Your task to perform on an android device: Check the weather Image 0: 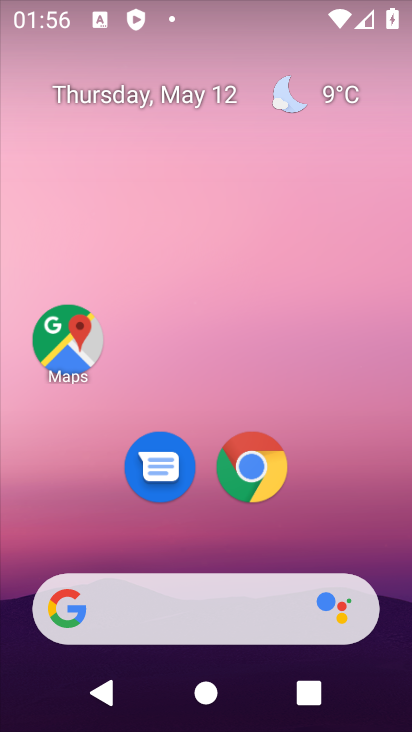
Step 0: drag from (309, 547) to (302, 182)
Your task to perform on an android device: Check the weather Image 1: 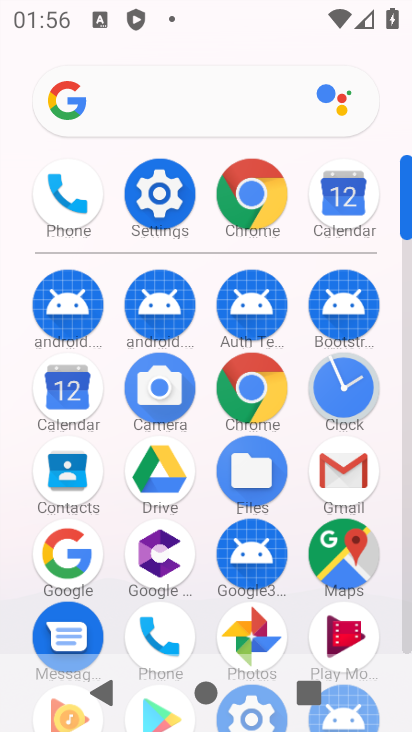
Step 1: click (254, 196)
Your task to perform on an android device: Check the weather Image 2: 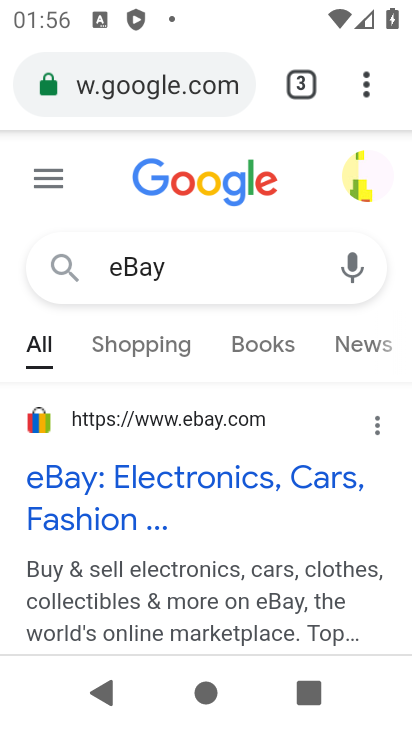
Step 2: click (291, 167)
Your task to perform on an android device: Check the weather Image 3: 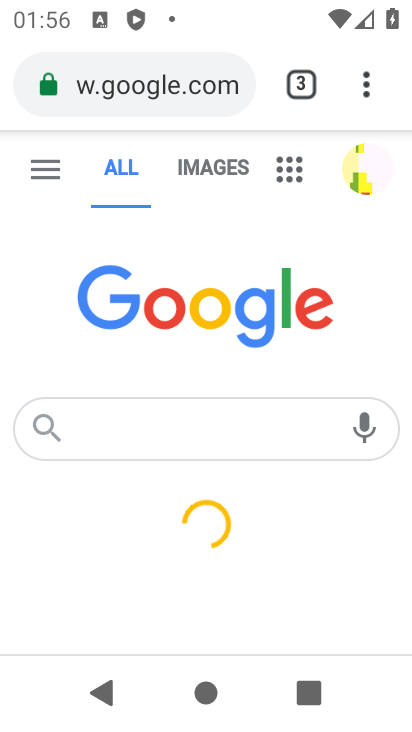
Step 3: click (238, 438)
Your task to perform on an android device: Check the weather Image 4: 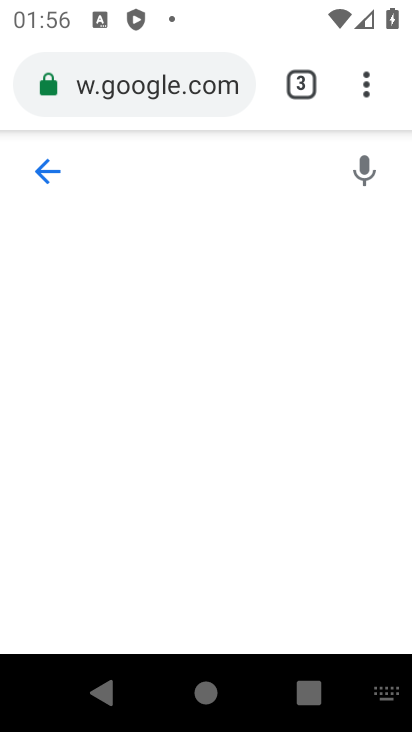
Step 4: click (330, 726)
Your task to perform on an android device: Check the weather Image 5: 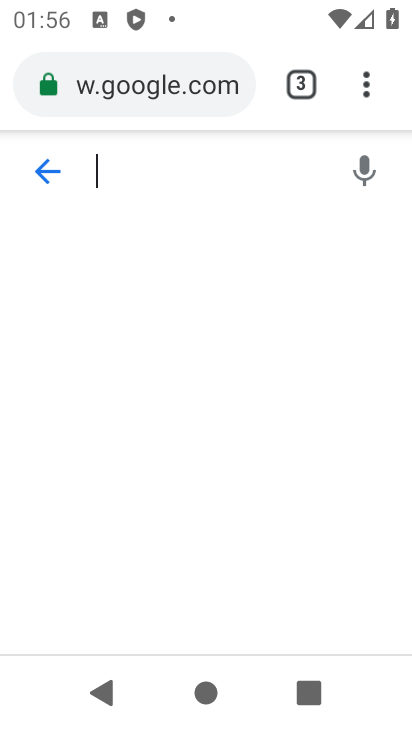
Step 5: click (350, 85)
Your task to perform on an android device: Check the weather Image 6: 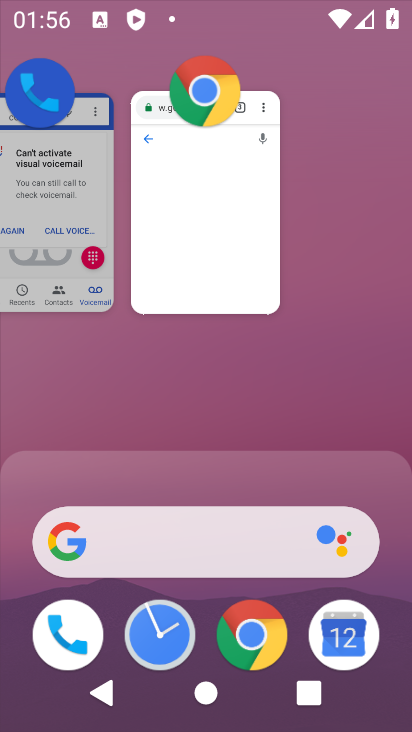
Step 6: click (210, 146)
Your task to perform on an android device: Check the weather Image 7: 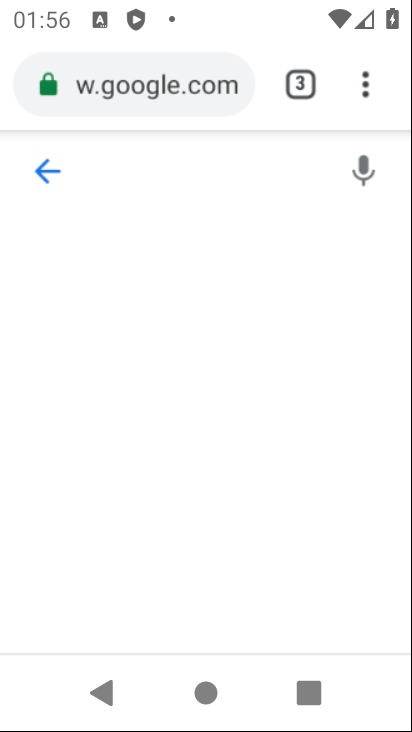
Step 7: click (343, 76)
Your task to perform on an android device: Check the weather Image 8: 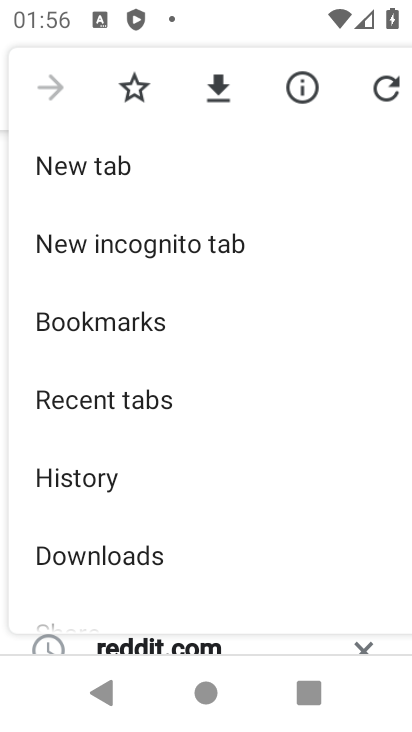
Step 8: click (95, 163)
Your task to perform on an android device: Check the weather Image 9: 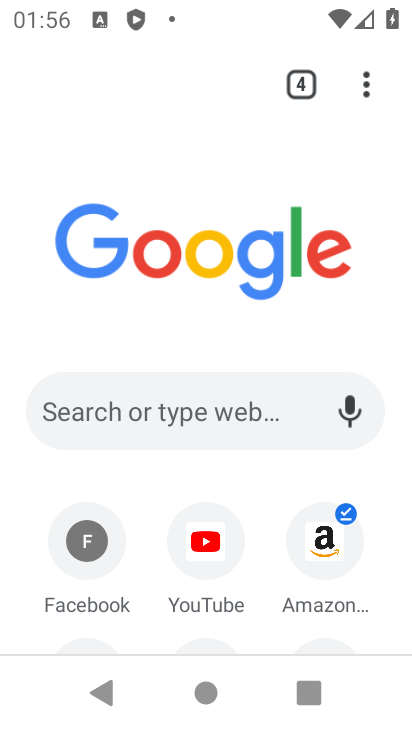
Step 9: click (130, 169)
Your task to perform on an android device: Check the weather Image 10: 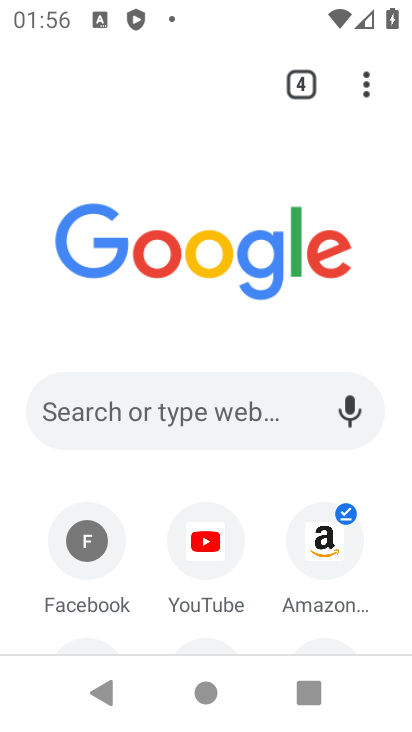
Step 10: click (240, 415)
Your task to perform on an android device: Check the weather Image 11: 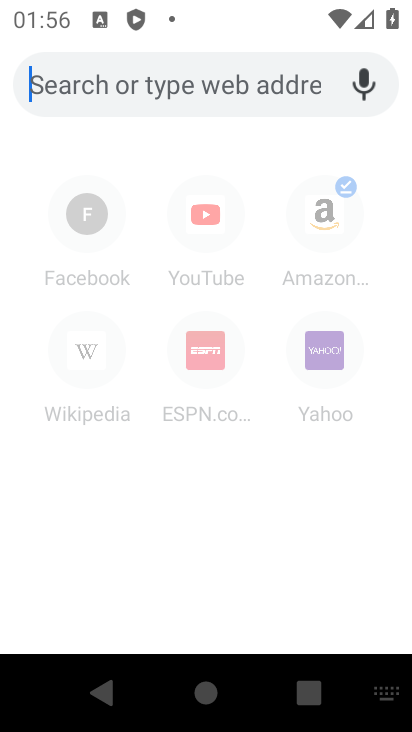
Step 11: click (148, 61)
Your task to perform on an android device: Check the weather Image 12: 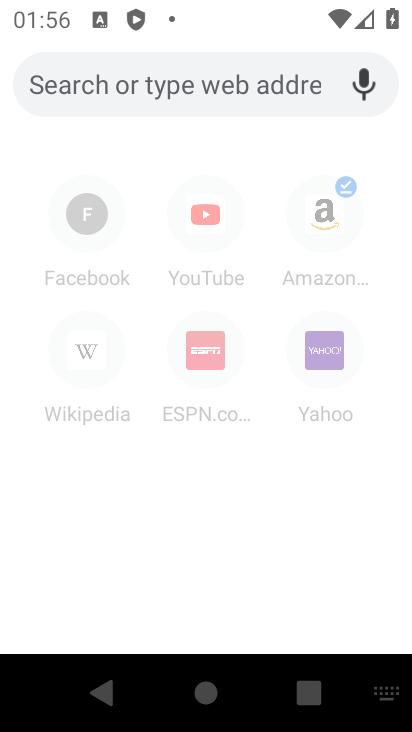
Step 12: type "Check the weather"
Your task to perform on an android device: Check the weather Image 13: 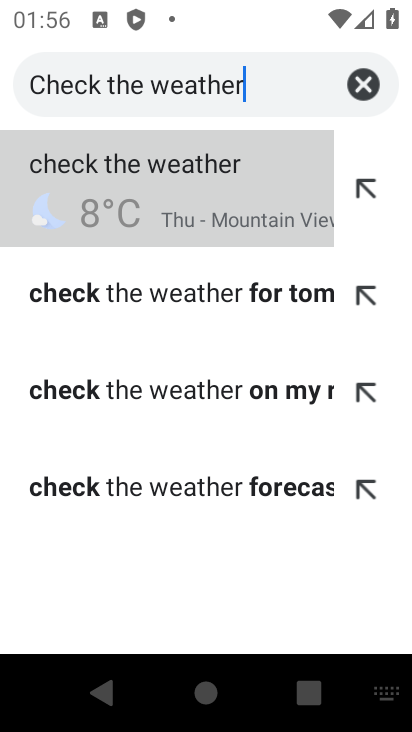
Step 13: click (156, 165)
Your task to perform on an android device: Check the weather Image 14: 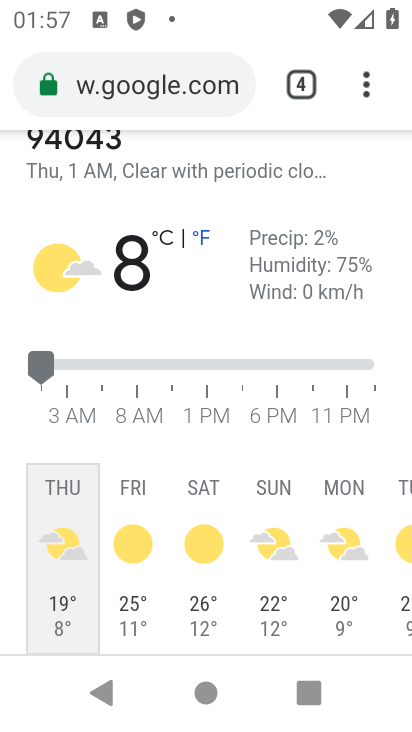
Step 14: task complete